Your task to perform on an android device: toggle airplane mode Image 0: 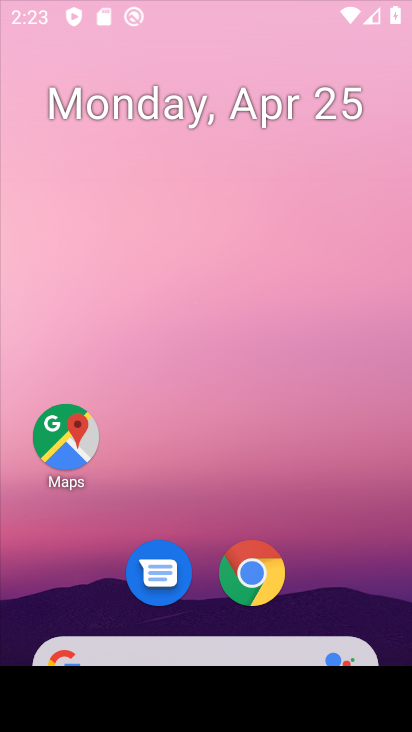
Step 0: drag from (411, 88) to (402, 3)
Your task to perform on an android device: toggle airplane mode Image 1: 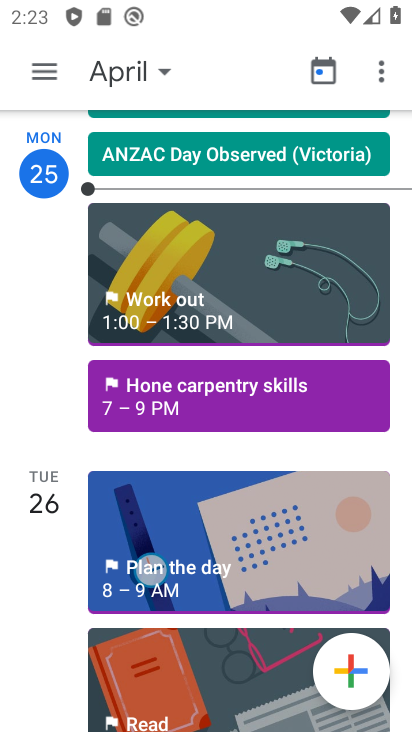
Step 1: press home button
Your task to perform on an android device: toggle airplane mode Image 2: 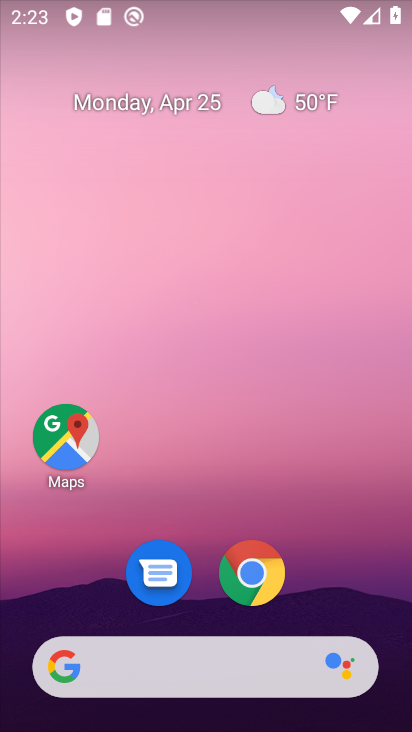
Step 2: drag from (350, 547) to (350, 10)
Your task to perform on an android device: toggle airplane mode Image 3: 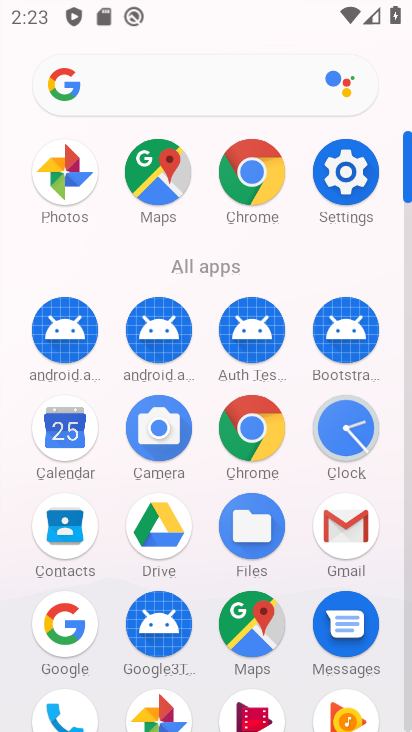
Step 3: click (351, 192)
Your task to perform on an android device: toggle airplane mode Image 4: 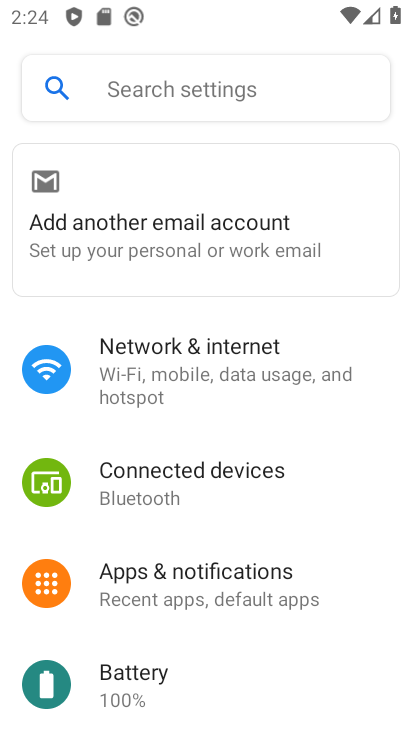
Step 4: click (152, 380)
Your task to perform on an android device: toggle airplane mode Image 5: 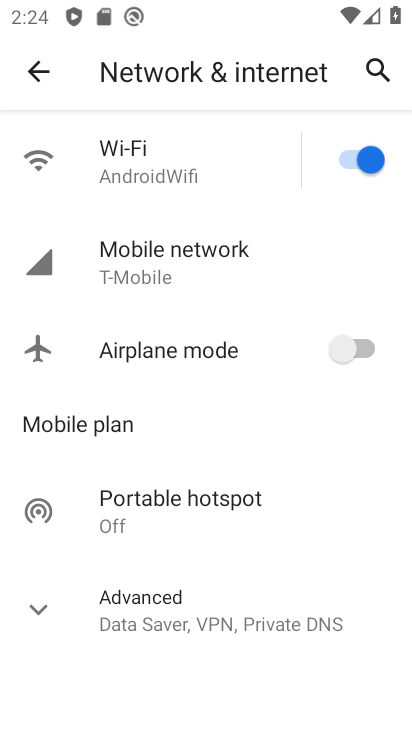
Step 5: drag from (197, 587) to (217, 302)
Your task to perform on an android device: toggle airplane mode Image 6: 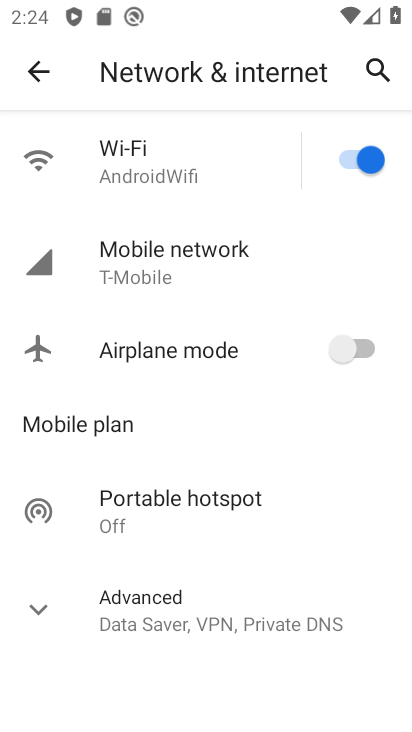
Step 6: click (344, 354)
Your task to perform on an android device: toggle airplane mode Image 7: 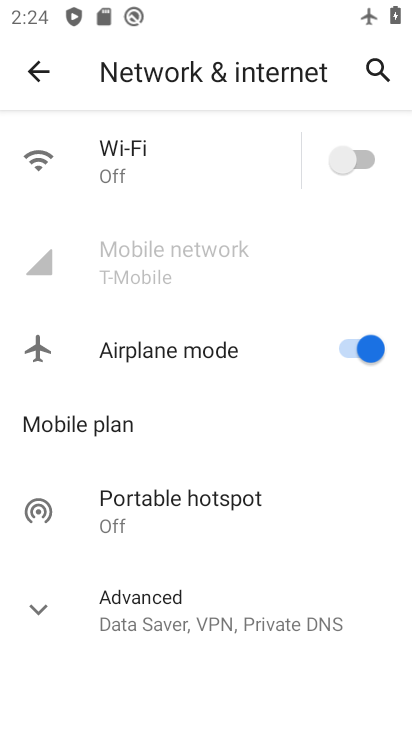
Step 7: task complete